Your task to perform on an android device: toggle improve location accuracy Image 0: 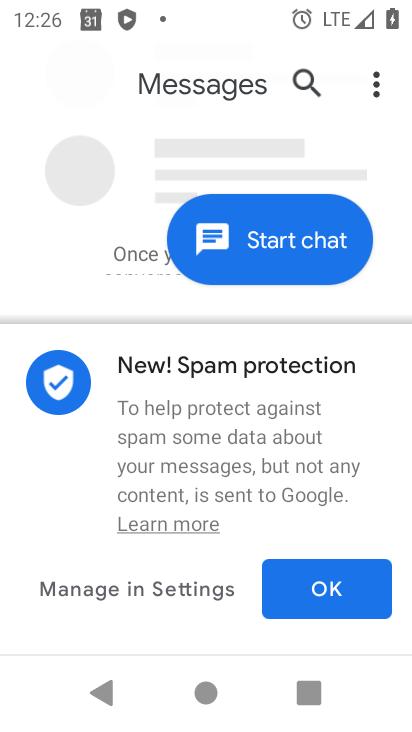
Step 0: press back button
Your task to perform on an android device: toggle improve location accuracy Image 1: 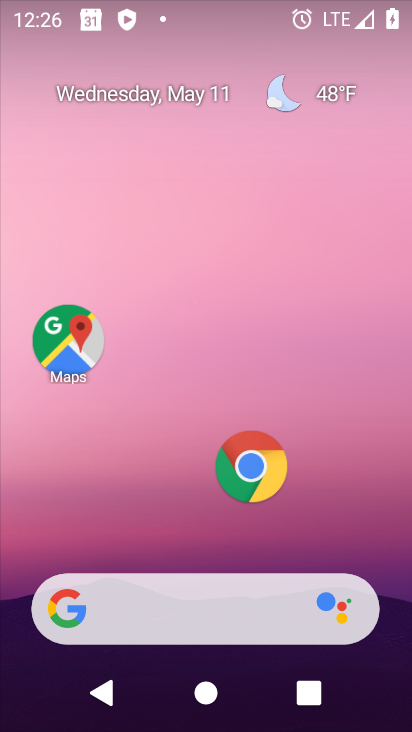
Step 1: drag from (215, 550) to (253, 70)
Your task to perform on an android device: toggle improve location accuracy Image 2: 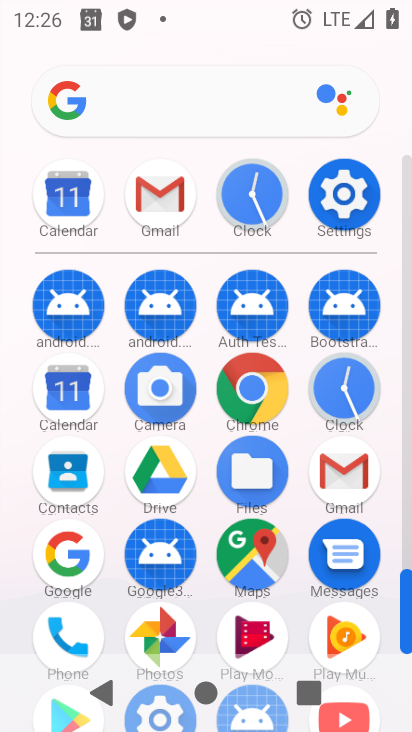
Step 2: click (341, 186)
Your task to perform on an android device: toggle improve location accuracy Image 3: 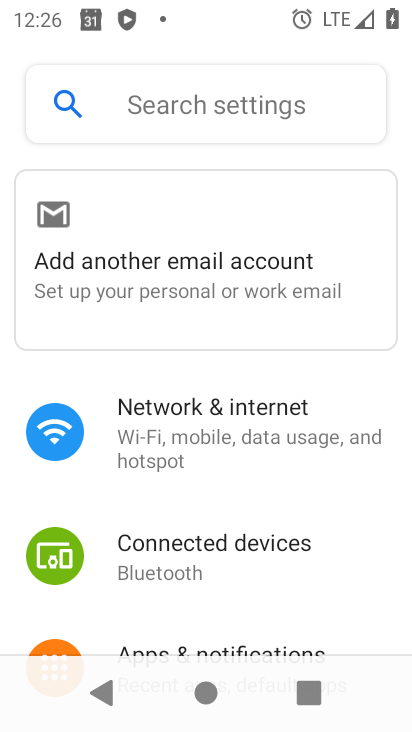
Step 3: drag from (204, 565) to (271, 55)
Your task to perform on an android device: toggle improve location accuracy Image 4: 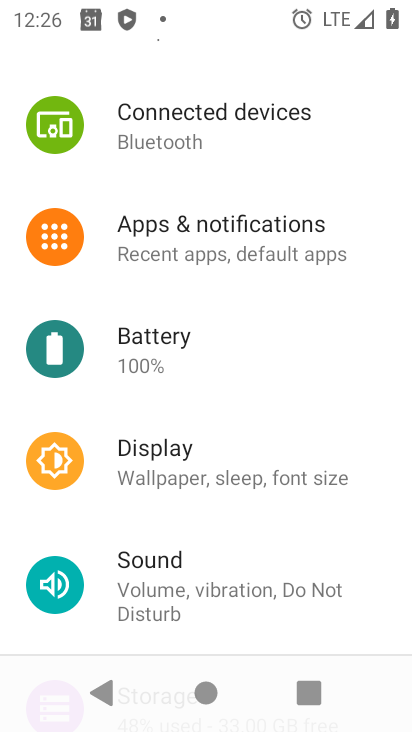
Step 4: drag from (257, 429) to (346, 5)
Your task to perform on an android device: toggle improve location accuracy Image 5: 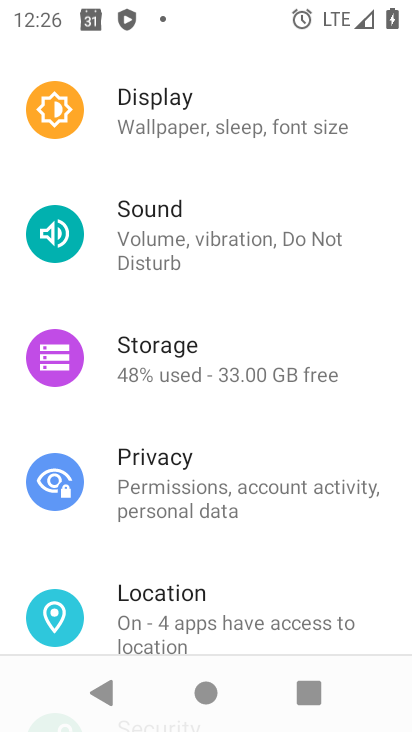
Step 5: click (148, 616)
Your task to perform on an android device: toggle improve location accuracy Image 6: 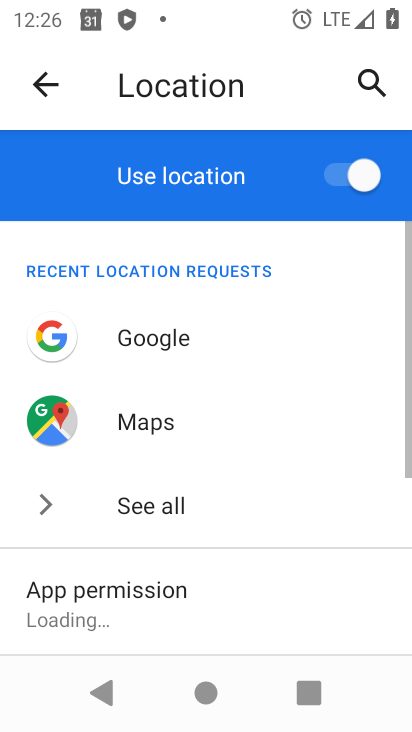
Step 6: drag from (165, 601) to (295, 63)
Your task to perform on an android device: toggle improve location accuracy Image 7: 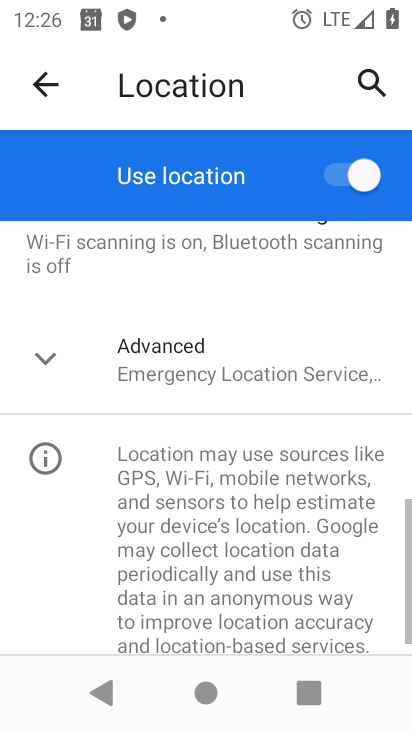
Step 7: click (162, 345)
Your task to perform on an android device: toggle improve location accuracy Image 8: 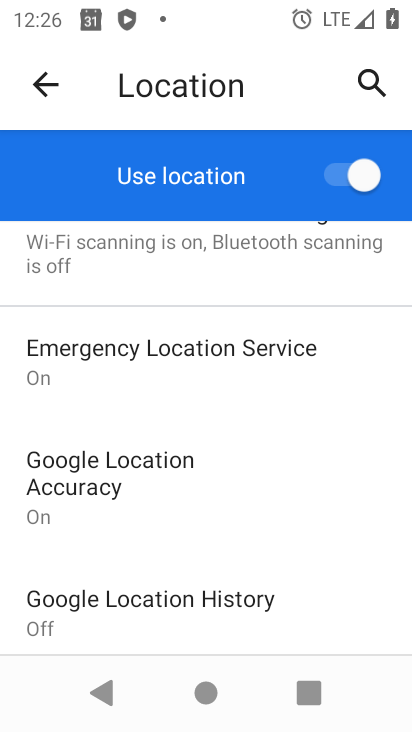
Step 8: click (106, 484)
Your task to perform on an android device: toggle improve location accuracy Image 9: 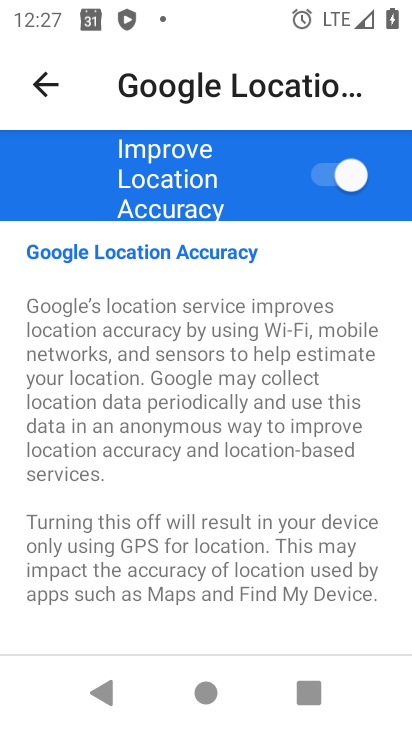
Step 9: click (338, 170)
Your task to perform on an android device: toggle improve location accuracy Image 10: 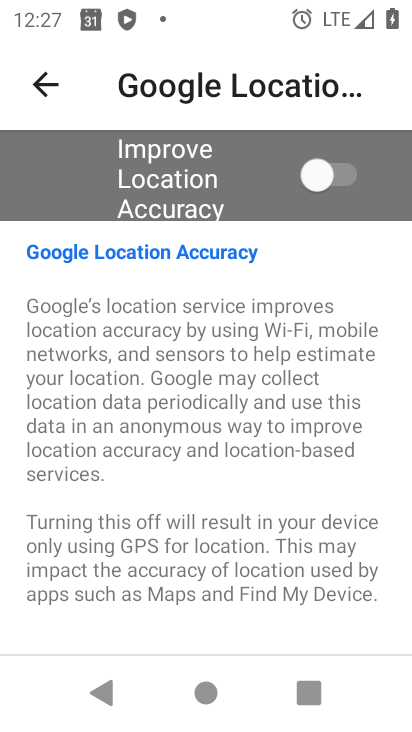
Step 10: task complete